Your task to perform on an android device: turn off smart reply in the gmail app Image 0: 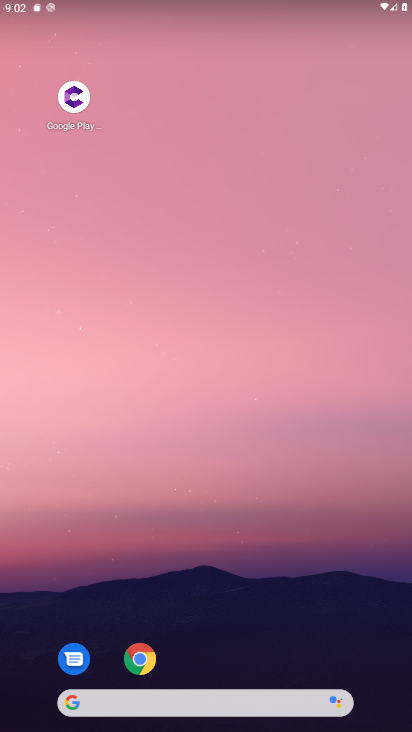
Step 0: drag from (132, 708) to (207, 118)
Your task to perform on an android device: turn off smart reply in the gmail app Image 1: 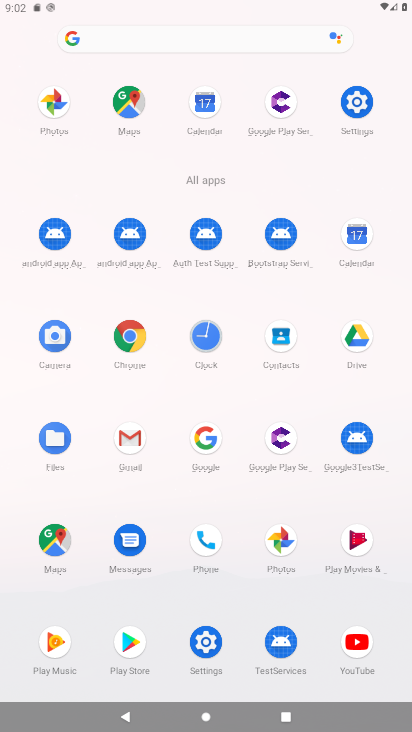
Step 1: click (119, 432)
Your task to perform on an android device: turn off smart reply in the gmail app Image 2: 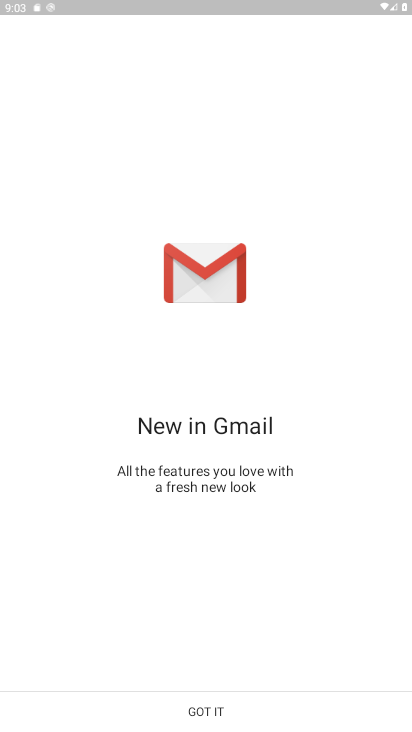
Step 2: click (179, 718)
Your task to perform on an android device: turn off smart reply in the gmail app Image 3: 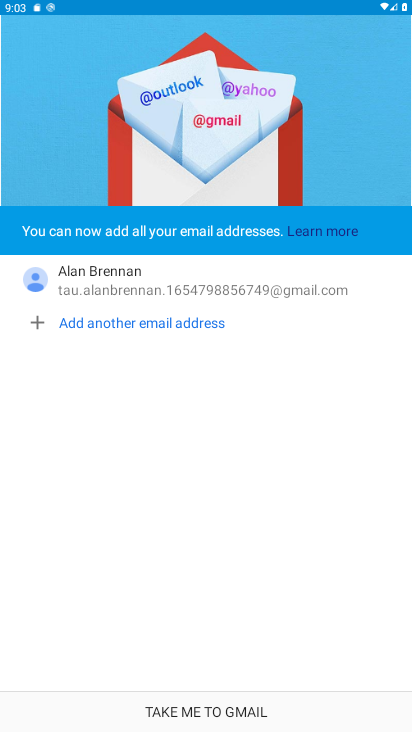
Step 3: click (239, 705)
Your task to perform on an android device: turn off smart reply in the gmail app Image 4: 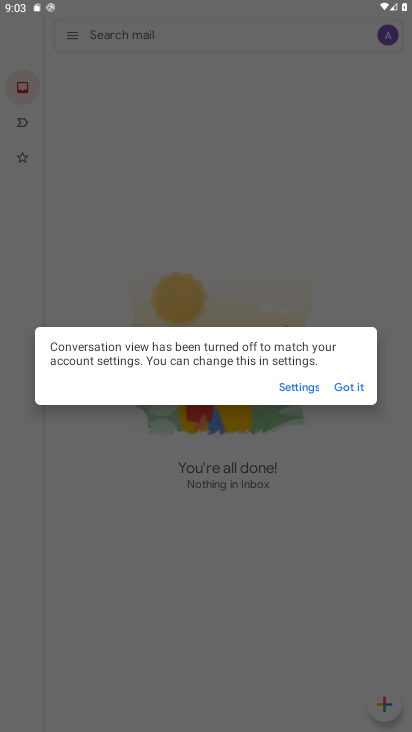
Step 4: click (349, 391)
Your task to perform on an android device: turn off smart reply in the gmail app Image 5: 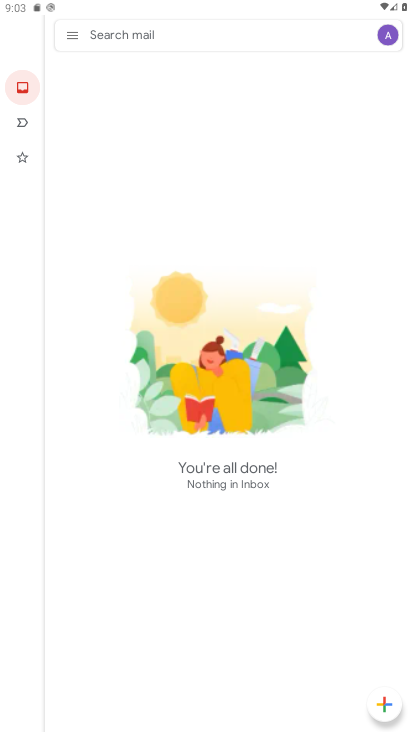
Step 5: click (76, 46)
Your task to perform on an android device: turn off smart reply in the gmail app Image 6: 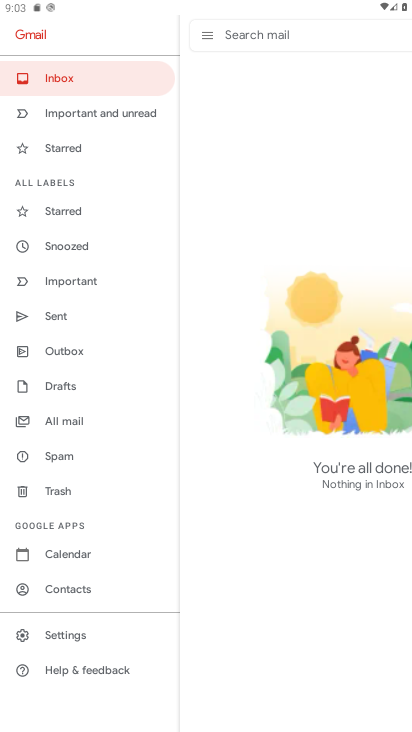
Step 6: click (69, 644)
Your task to perform on an android device: turn off smart reply in the gmail app Image 7: 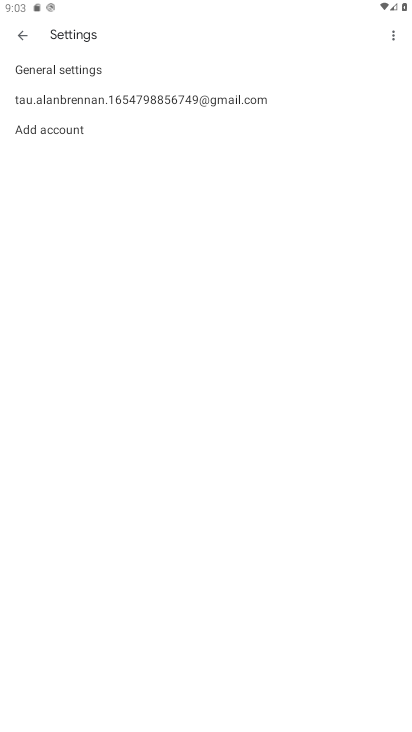
Step 7: click (90, 100)
Your task to perform on an android device: turn off smart reply in the gmail app Image 8: 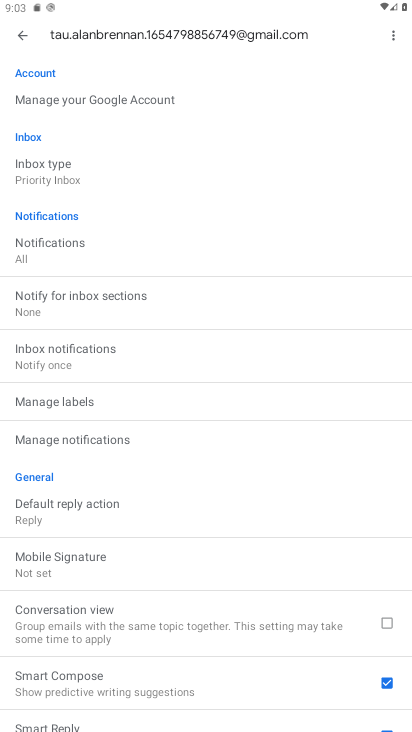
Step 8: drag from (123, 641) to (150, 51)
Your task to perform on an android device: turn off smart reply in the gmail app Image 9: 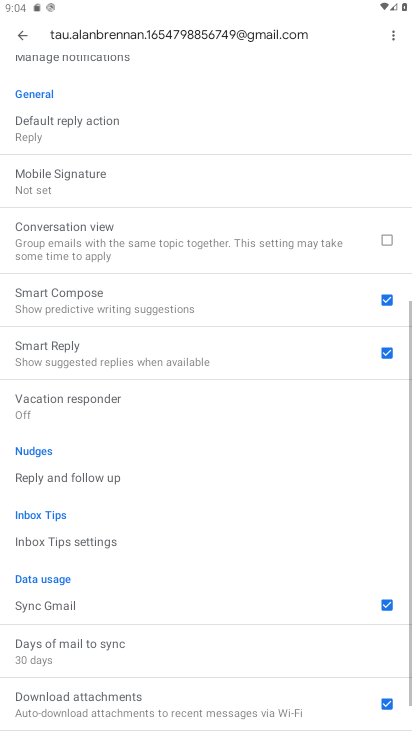
Step 9: drag from (206, 675) to (214, 414)
Your task to perform on an android device: turn off smart reply in the gmail app Image 10: 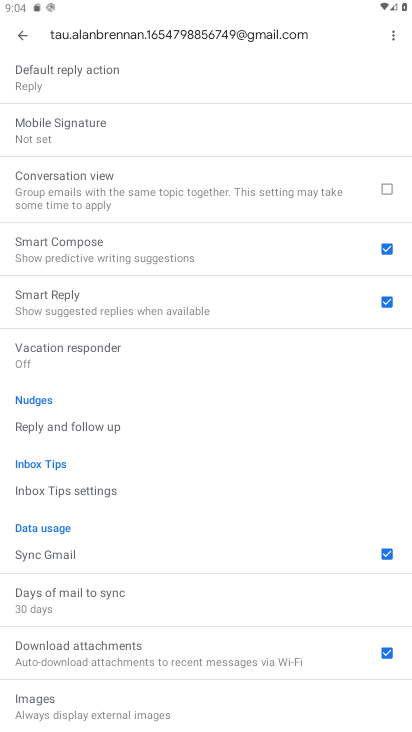
Step 10: click (390, 301)
Your task to perform on an android device: turn off smart reply in the gmail app Image 11: 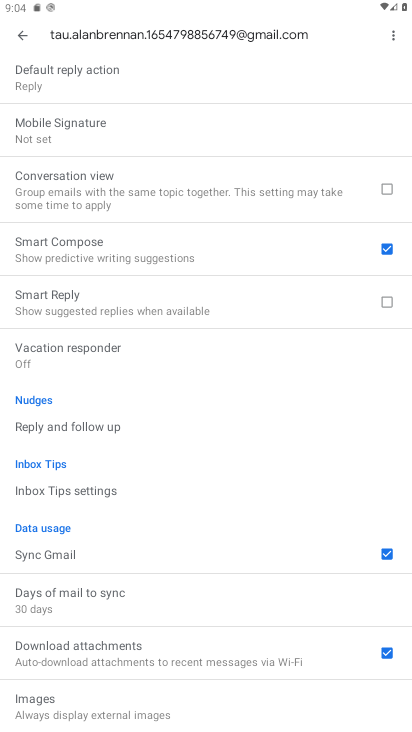
Step 11: task complete